Your task to perform on an android device: Open Maps and search for coffee Image 0: 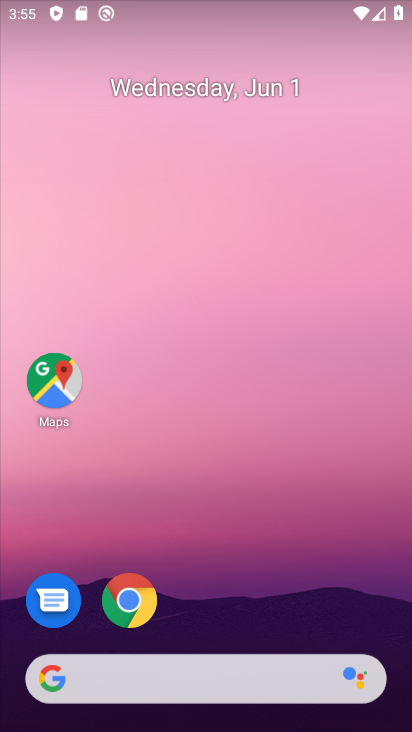
Step 0: click (54, 380)
Your task to perform on an android device: Open Maps and search for coffee Image 1: 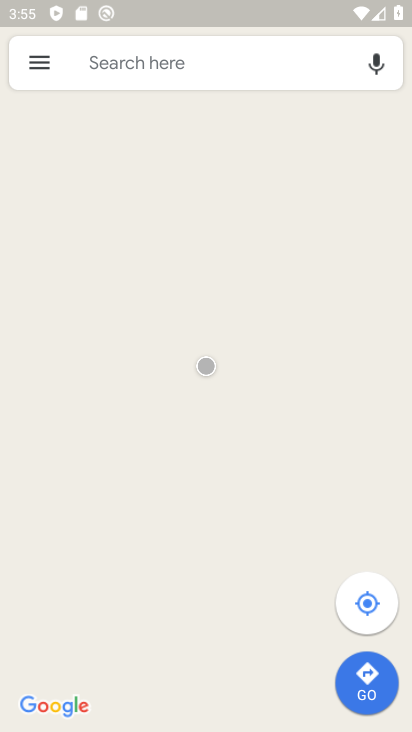
Step 1: click (188, 53)
Your task to perform on an android device: Open Maps and search for coffee Image 2: 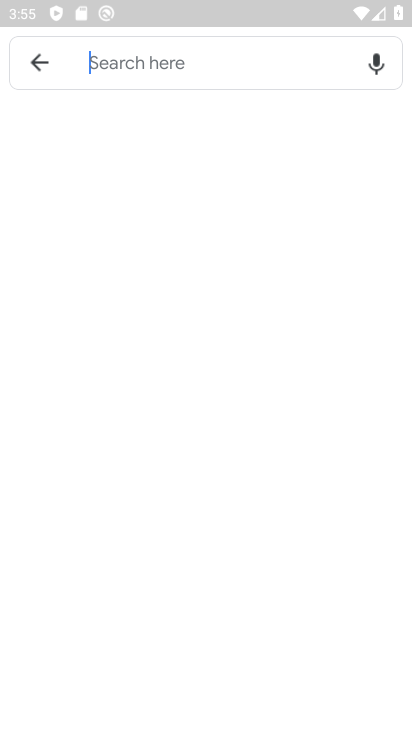
Step 2: click (181, 60)
Your task to perform on an android device: Open Maps and search for coffee Image 3: 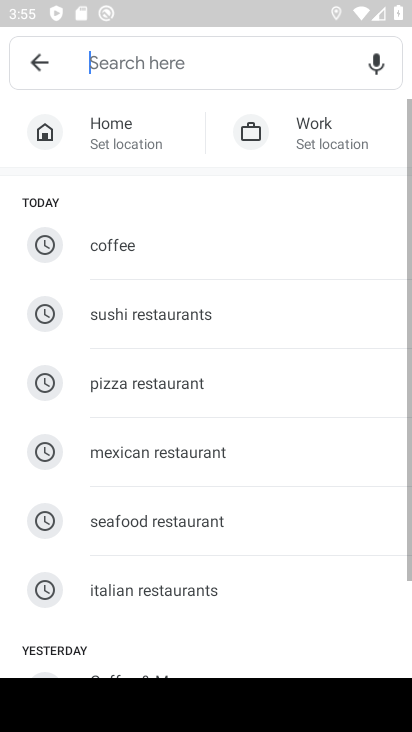
Step 3: type "coffee"
Your task to perform on an android device: Open Maps and search for coffee Image 4: 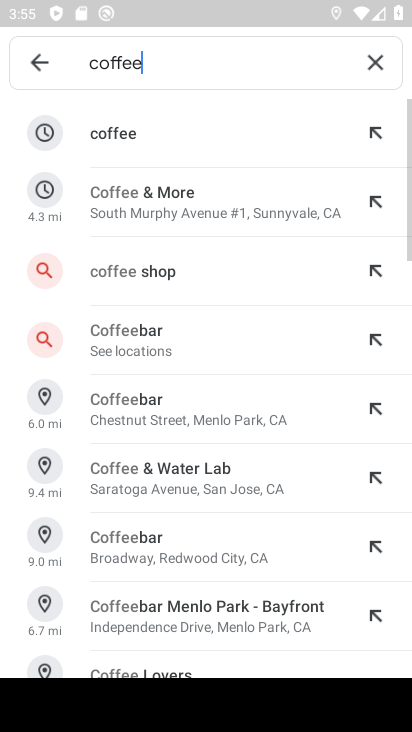
Step 4: click (130, 138)
Your task to perform on an android device: Open Maps and search for coffee Image 5: 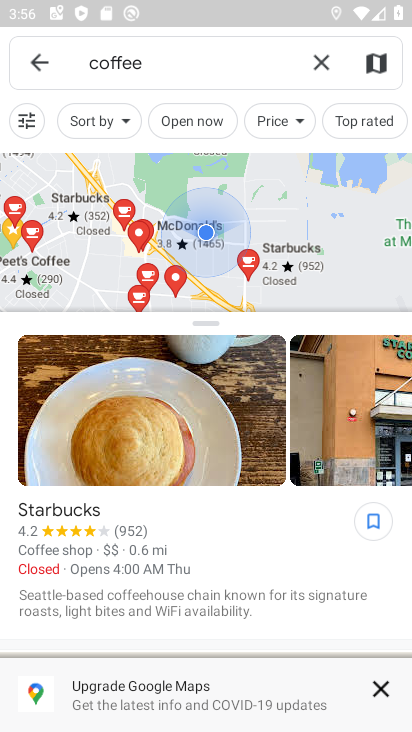
Step 5: task complete